Your task to perform on an android device: turn off notifications in google photos Image 0: 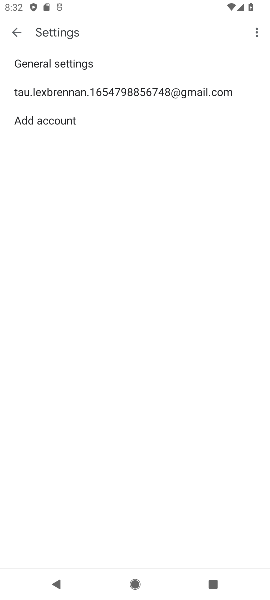
Step 0: press home button
Your task to perform on an android device: turn off notifications in google photos Image 1: 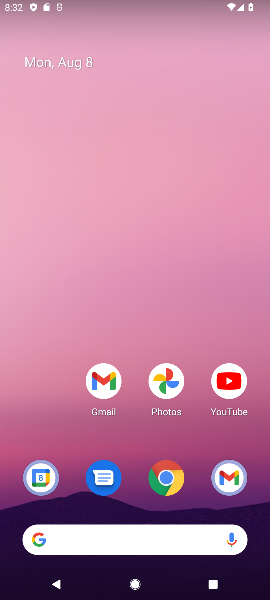
Step 1: click (155, 160)
Your task to perform on an android device: turn off notifications in google photos Image 2: 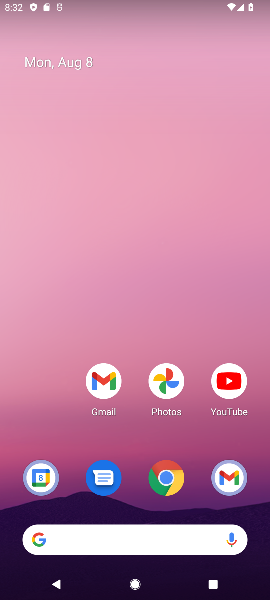
Step 2: drag from (119, 538) to (182, 134)
Your task to perform on an android device: turn off notifications in google photos Image 3: 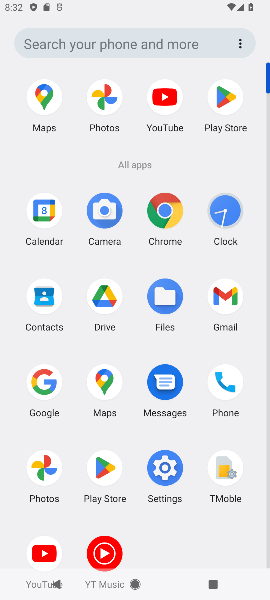
Step 3: click (47, 467)
Your task to perform on an android device: turn off notifications in google photos Image 4: 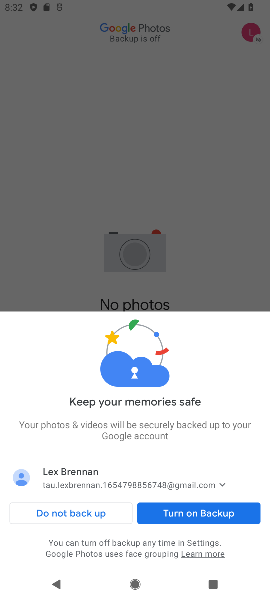
Step 4: click (172, 516)
Your task to perform on an android device: turn off notifications in google photos Image 5: 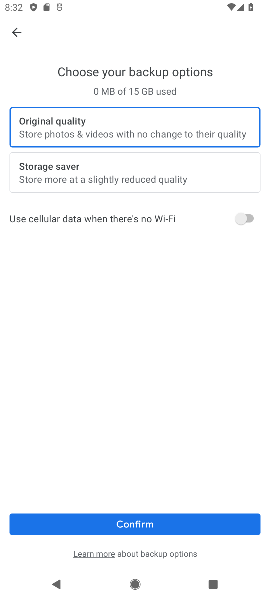
Step 5: click (166, 524)
Your task to perform on an android device: turn off notifications in google photos Image 6: 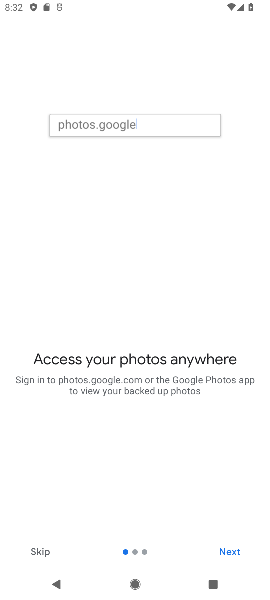
Step 6: click (227, 554)
Your task to perform on an android device: turn off notifications in google photos Image 7: 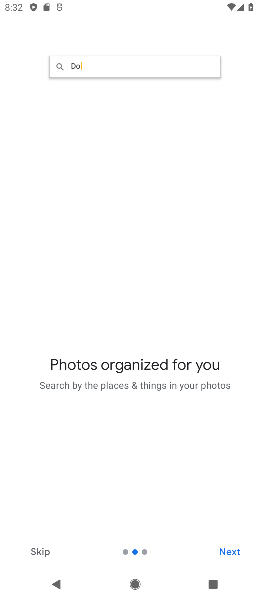
Step 7: click (227, 554)
Your task to perform on an android device: turn off notifications in google photos Image 8: 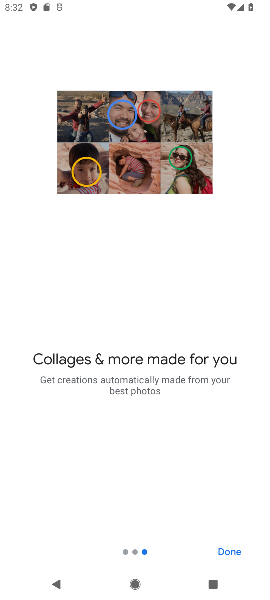
Step 8: click (227, 553)
Your task to perform on an android device: turn off notifications in google photos Image 9: 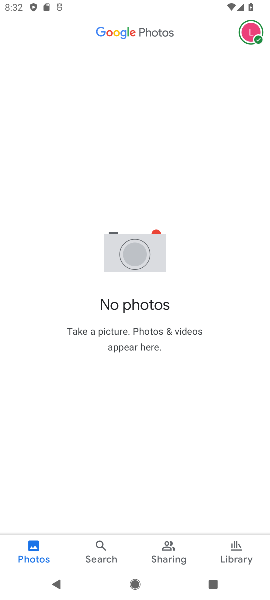
Step 9: click (249, 34)
Your task to perform on an android device: turn off notifications in google photos Image 10: 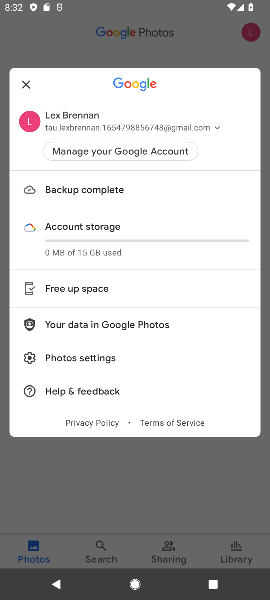
Step 10: click (73, 360)
Your task to perform on an android device: turn off notifications in google photos Image 11: 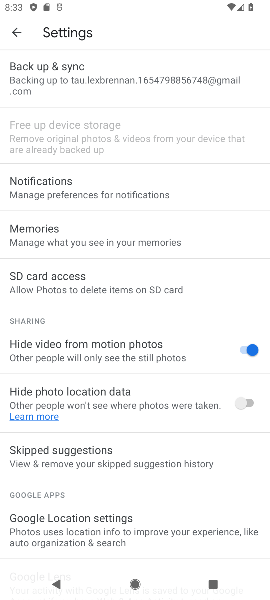
Step 11: click (84, 195)
Your task to perform on an android device: turn off notifications in google photos Image 12: 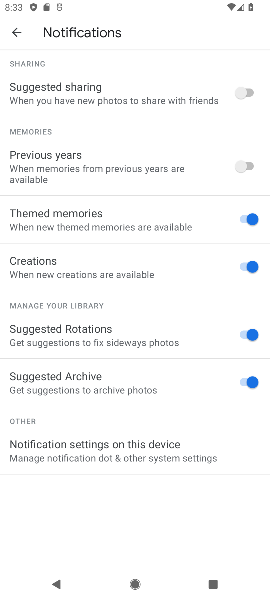
Step 12: click (111, 448)
Your task to perform on an android device: turn off notifications in google photos Image 13: 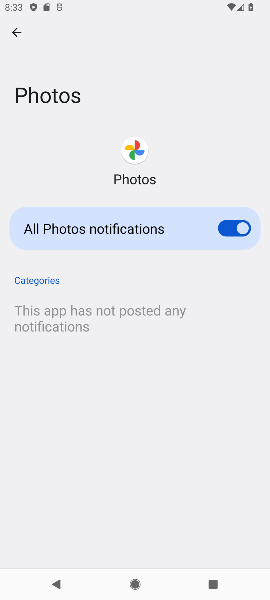
Step 13: click (229, 225)
Your task to perform on an android device: turn off notifications in google photos Image 14: 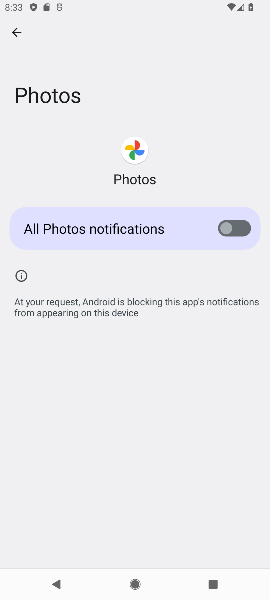
Step 14: task complete